Your task to perform on an android device: Open Yahoo.com Image 0: 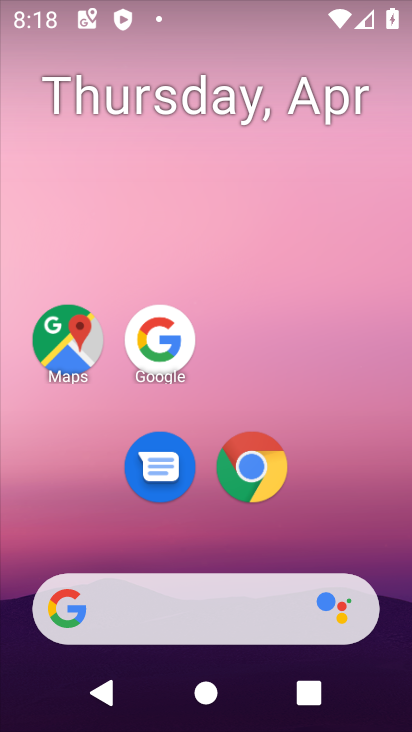
Step 0: drag from (242, 496) to (182, 206)
Your task to perform on an android device: Open Yahoo.com Image 1: 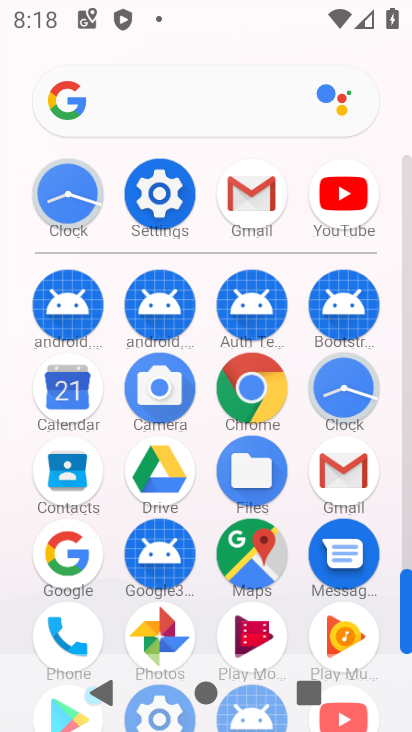
Step 1: click (253, 395)
Your task to perform on an android device: Open Yahoo.com Image 2: 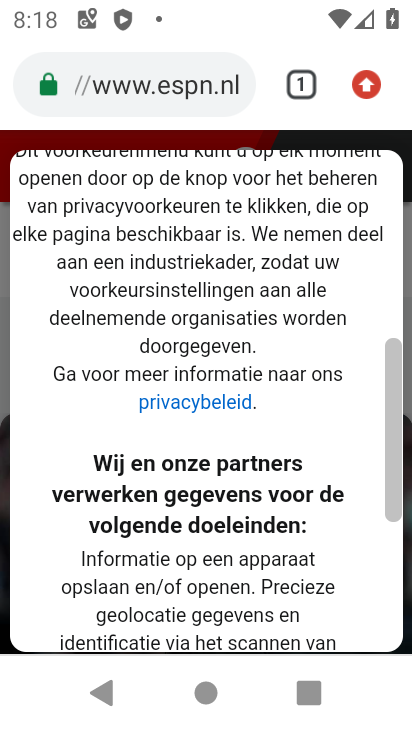
Step 2: click (178, 93)
Your task to perform on an android device: Open Yahoo.com Image 3: 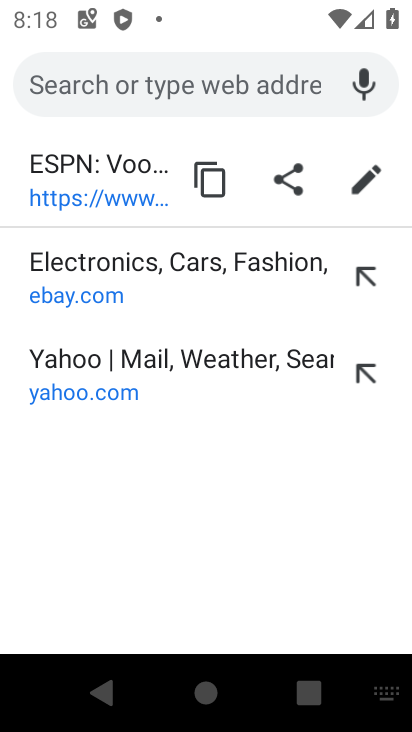
Step 3: type "yahoo.com"
Your task to perform on an android device: Open Yahoo.com Image 4: 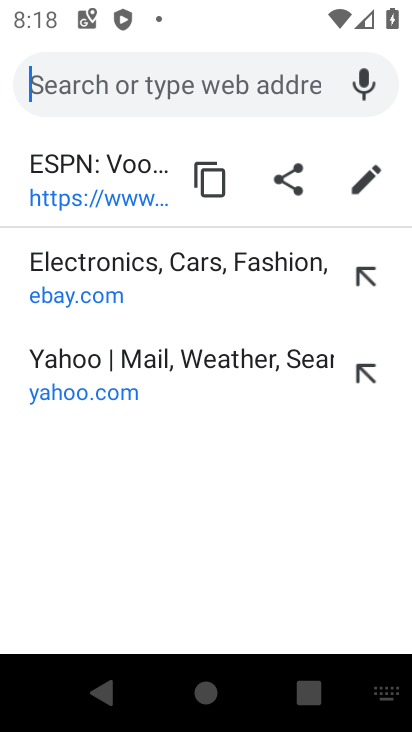
Step 4: click (223, 362)
Your task to perform on an android device: Open Yahoo.com Image 5: 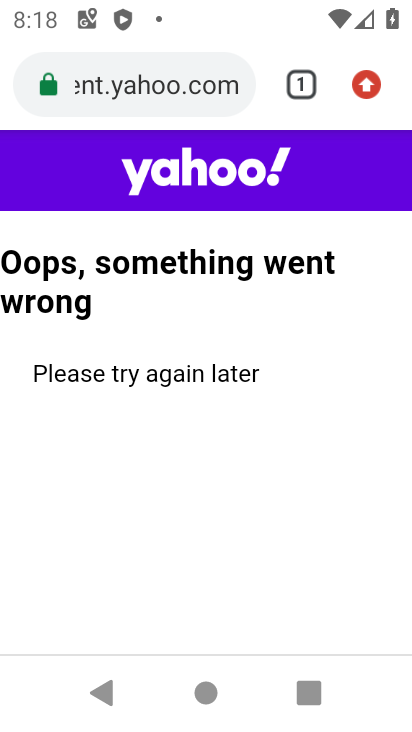
Step 5: task complete